Your task to perform on an android device: turn off priority inbox in the gmail app Image 0: 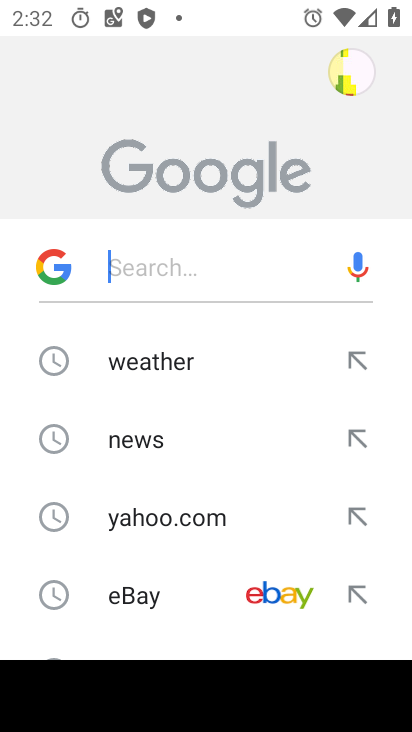
Step 0: press home button
Your task to perform on an android device: turn off priority inbox in the gmail app Image 1: 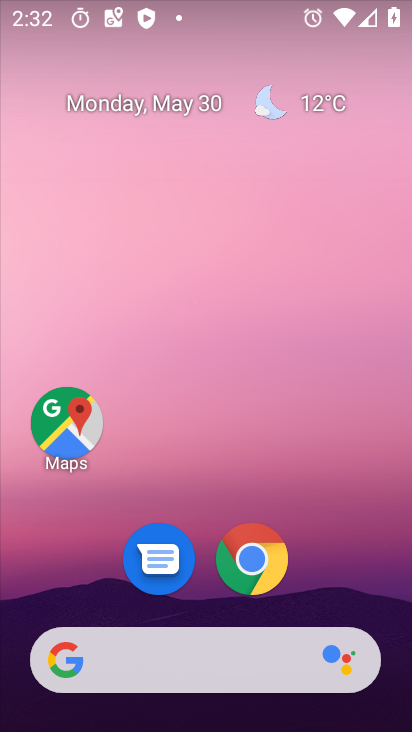
Step 1: drag from (180, 482) to (243, 26)
Your task to perform on an android device: turn off priority inbox in the gmail app Image 2: 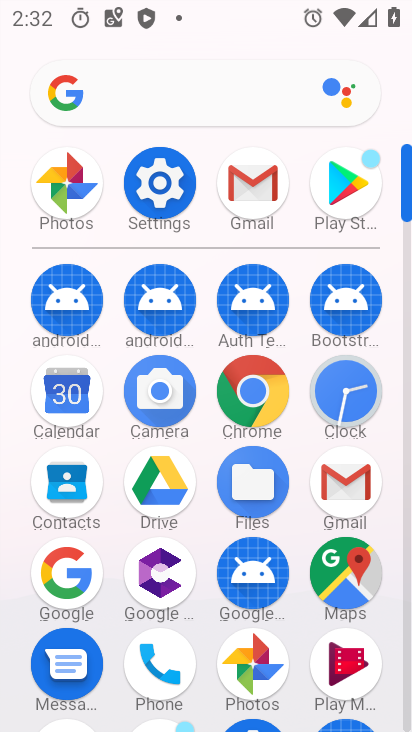
Step 2: click (255, 187)
Your task to perform on an android device: turn off priority inbox in the gmail app Image 3: 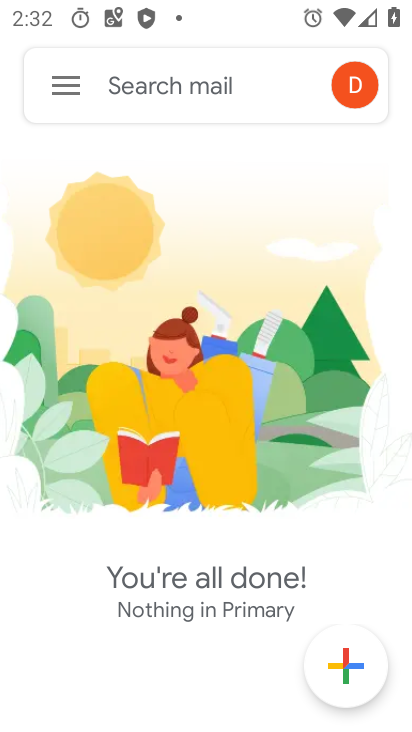
Step 3: click (63, 78)
Your task to perform on an android device: turn off priority inbox in the gmail app Image 4: 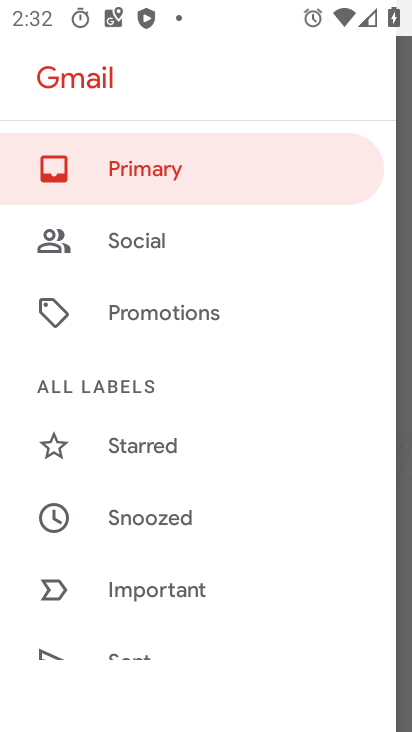
Step 4: drag from (146, 610) to (247, 79)
Your task to perform on an android device: turn off priority inbox in the gmail app Image 5: 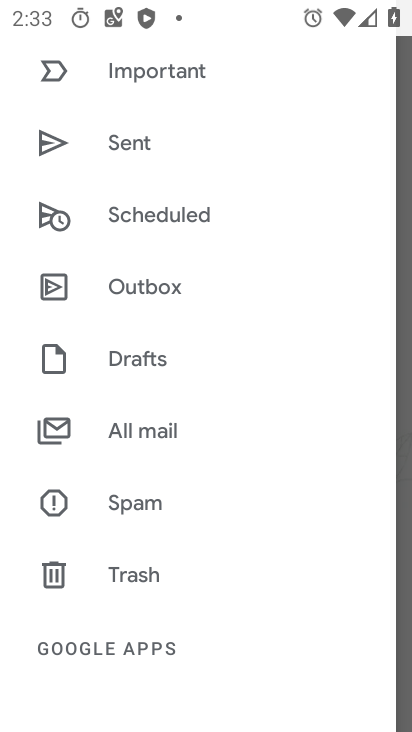
Step 5: drag from (163, 559) to (246, 36)
Your task to perform on an android device: turn off priority inbox in the gmail app Image 6: 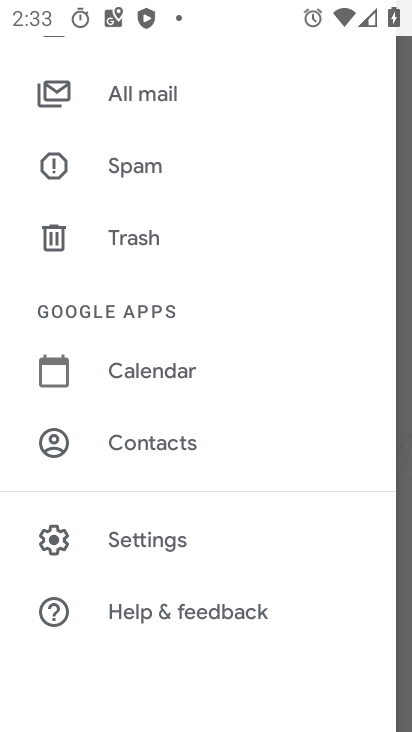
Step 6: click (124, 533)
Your task to perform on an android device: turn off priority inbox in the gmail app Image 7: 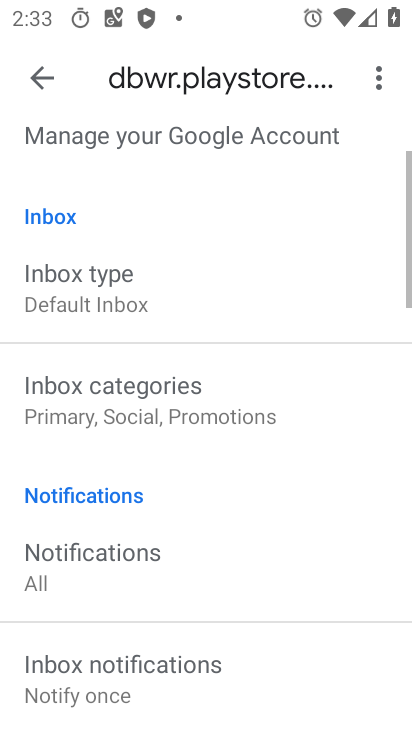
Step 7: click (114, 292)
Your task to perform on an android device: turn off priority inbox in the gmail app Image 8: 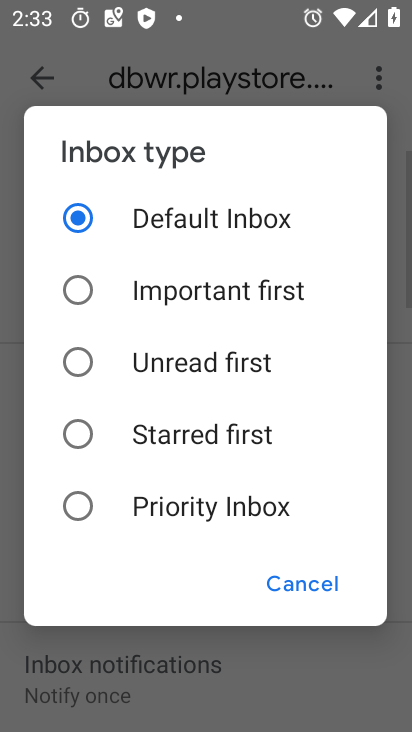
Step 8: task complete